Your task to perform on an android device: turn off javascript in the chrome app Image 0: 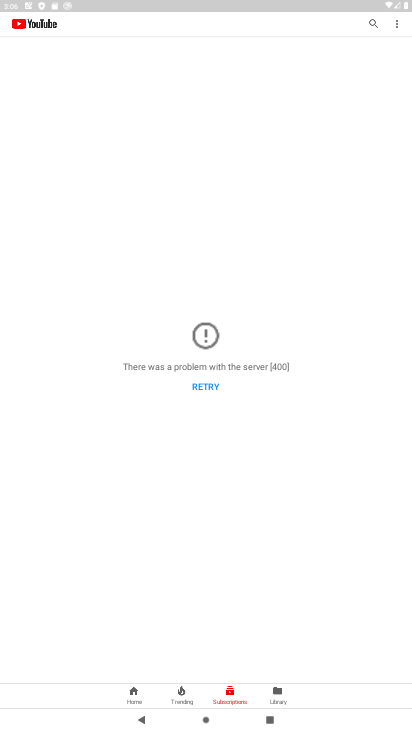
Step 0: press home button
Your task to perform on an android device: turn off javascript in the chrome app Image 1: 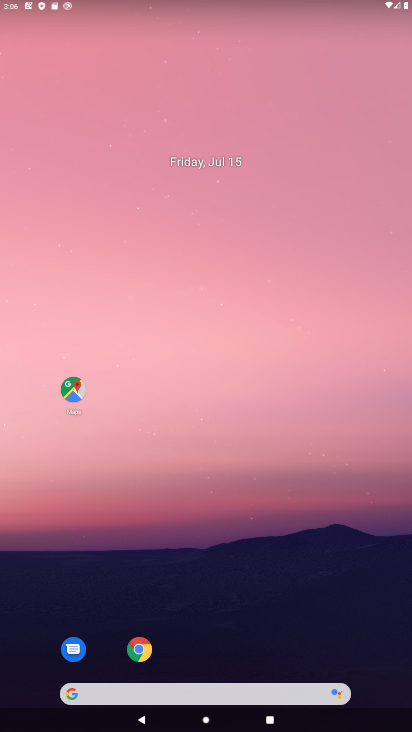
Step 1: drag from (228, 637) to (235, 210)
Your task to perform on an android device: turn off javascript in the chrome app Image 2: 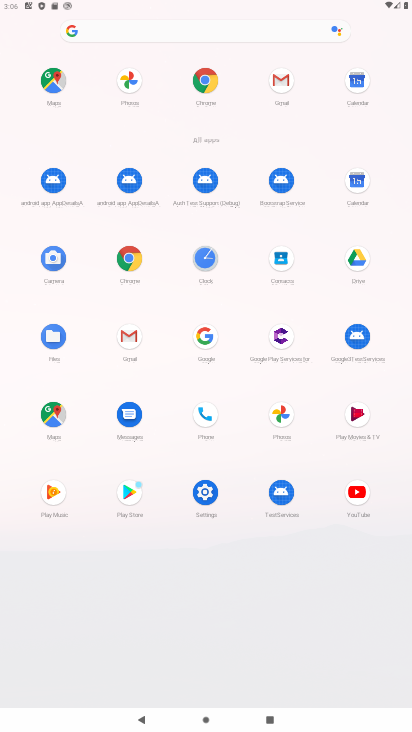
Step 2: click (202, 76)
Your task to perform on an android device: turn off javascript in the chrome app Image 3: 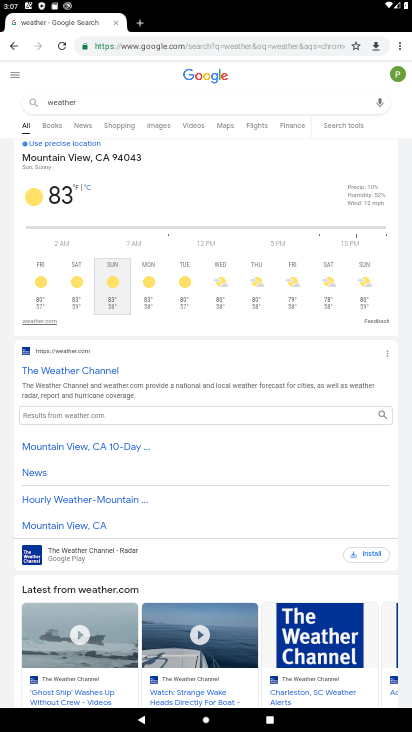
Step 3: drag from (395, 48) to (311, 277)
Your task to perform on an android device: turn off javascript in the chrome app Image 4: 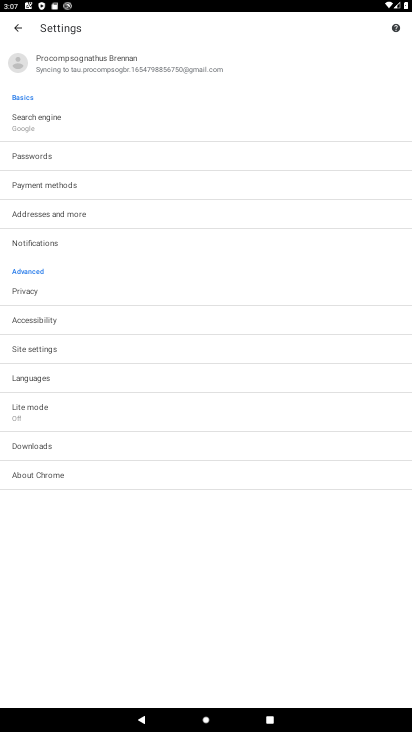
Step 4: click (54, 353)
Your task to perform on an android device: turn off javascript in the chrome app Image 5: 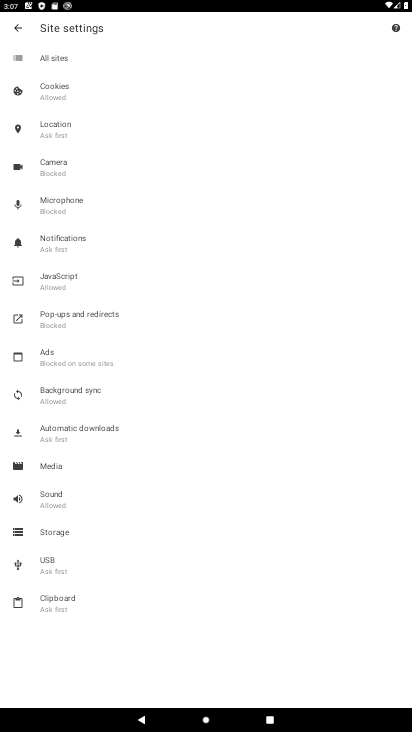
Step 5: click (65, 283)
Your task to perform on an android device: turn off javascript in the chrome app Image 6: 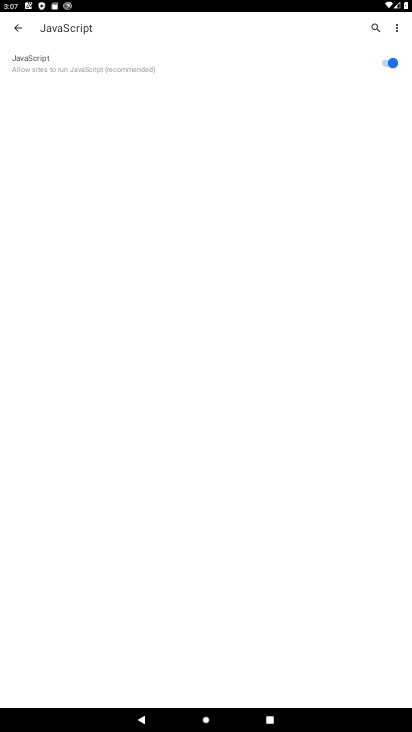
Step 6: click (386, 66)
Your task to perform on an android device: turn off javascript in the chrome app Image 7: 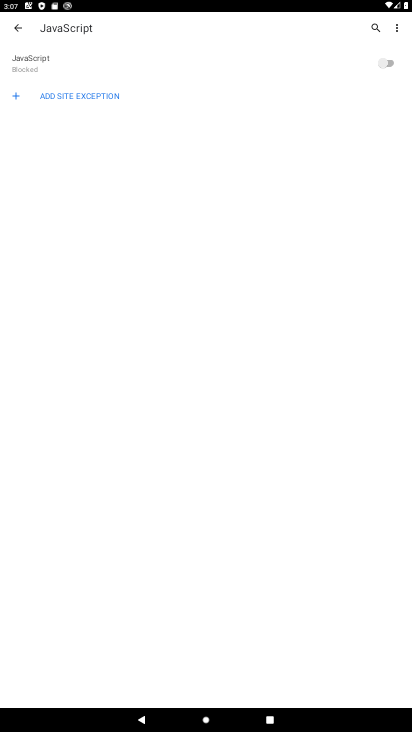
Step 7: task complete